Your task to perform on an android device: What's the weather? Image 0: 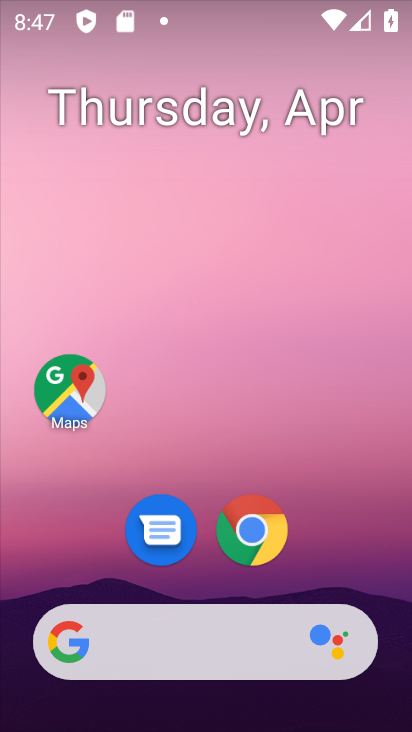
Step 0: click (289, 124)
Your task to perform on an android device: What's the weather? Image 1: 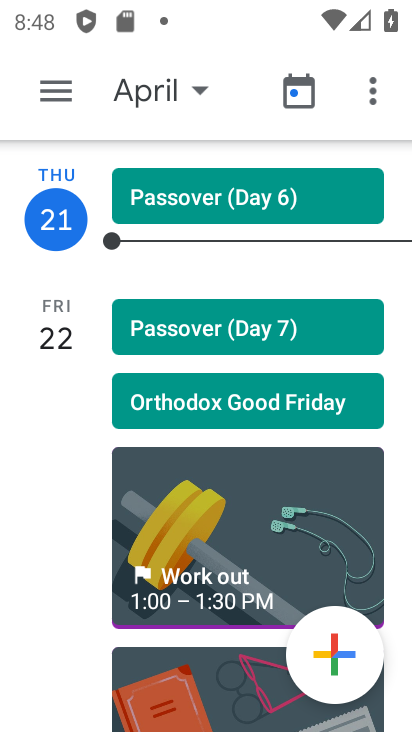
Step 1: press home button
Your task to perform on an android device: What's the weather? Image 2: 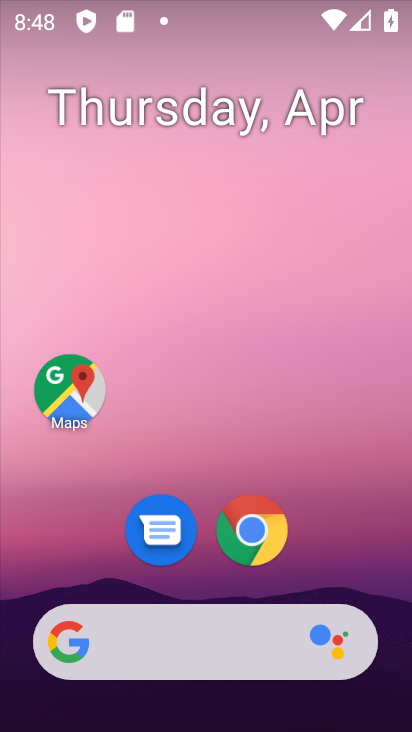
Step 2: click (164, 663)
Your task to perform on an android device: What's the weather? Image 3: 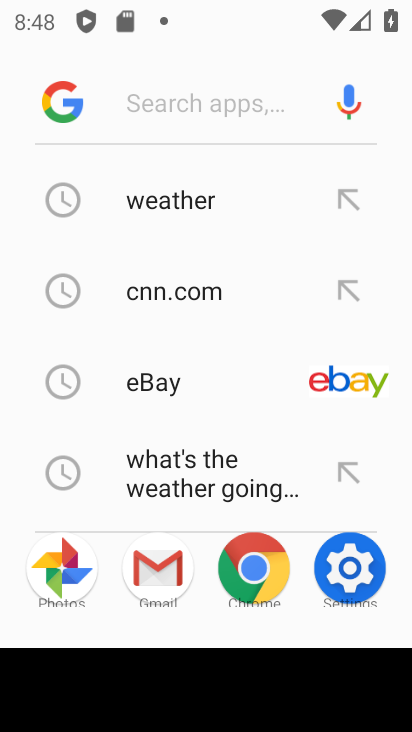
Step 3: click (207, 212)
Your task to perform on an android device: What's the weather? Image 4: 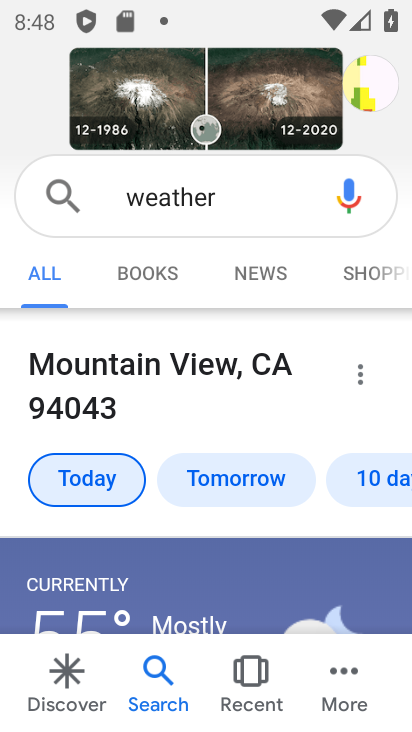
Step 4: task complete